Your task to perform on an android device: Go to display settings Image 0: 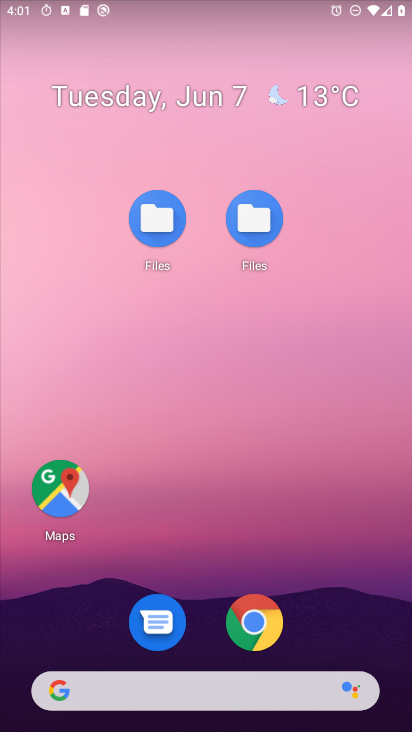
Step 0: drag from (318, 597) to (357, 10)
Your task to perform on an android device: Go to display settings Image 1: 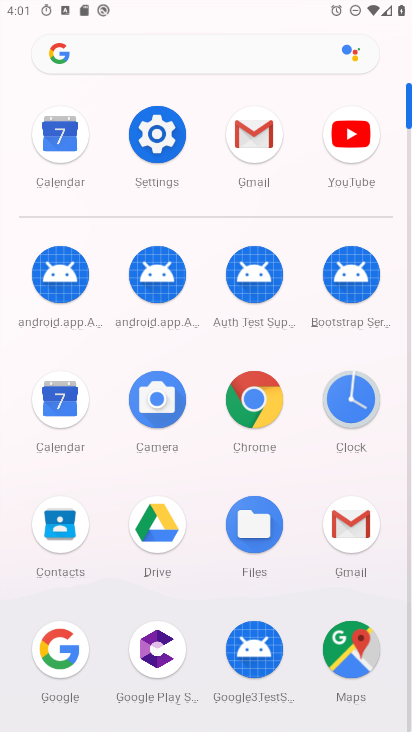
Step 1: click (162, 130)
Your task to perform on an android device: Go to display settings Image 2: 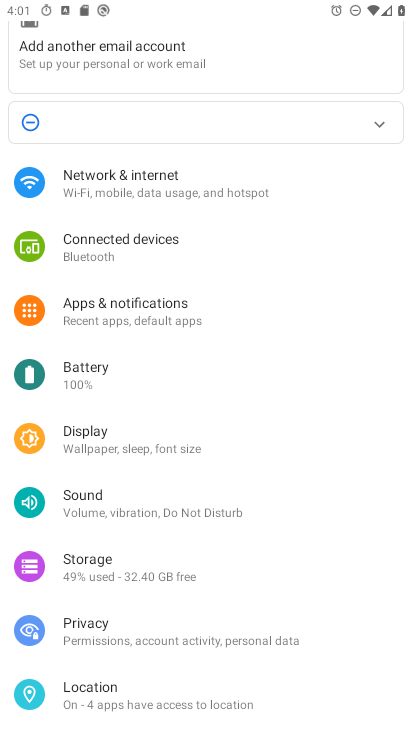
Step 2: click (119, 440)
Your task to perform on an android device: Go to display settings Image 3: 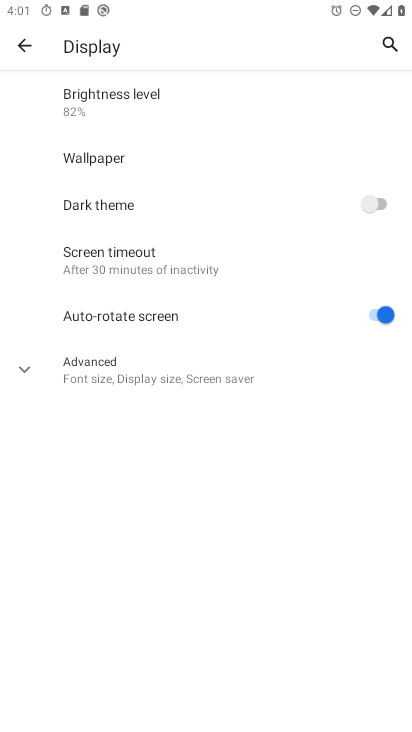
Step 3: task complete